Your task to perform on an android device: Add "dell xps" to the cart on walmart.com, then select checkout. Image 0: 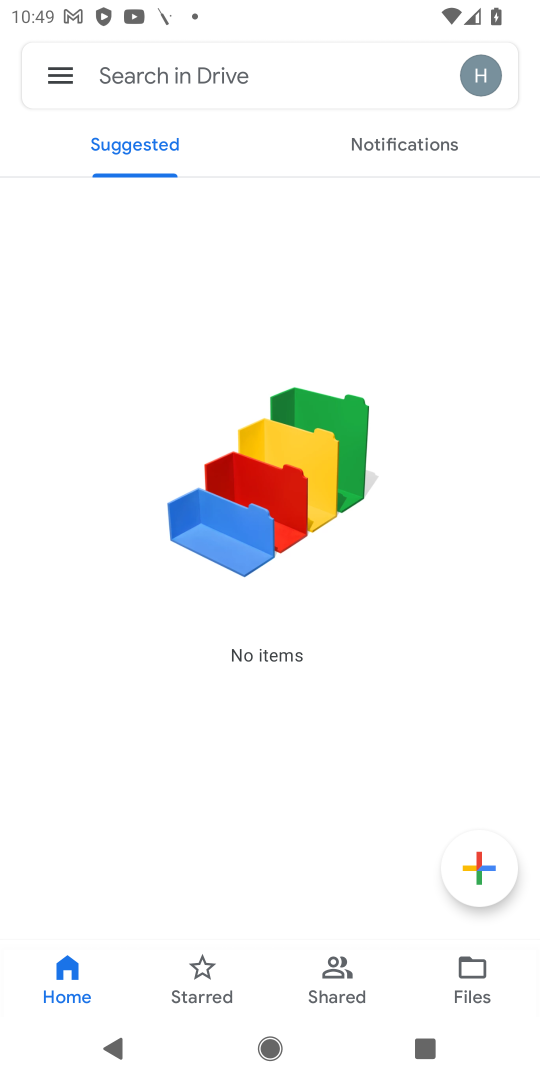
Step 0: press home button
Your task to perform on an android device: Add "dell xps" to the cart on walmart.com, then select checkout. Image 1: 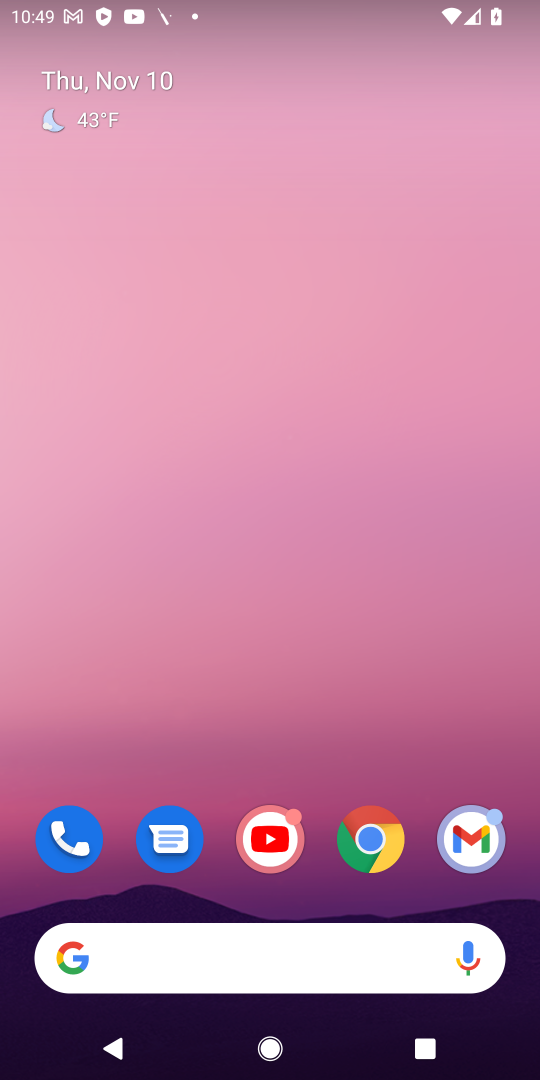
Step 1: click (390, 828)
Your task to perform on an android device: Add "dell xps" to the cart on walmart.com, then select checkout. Image 2: 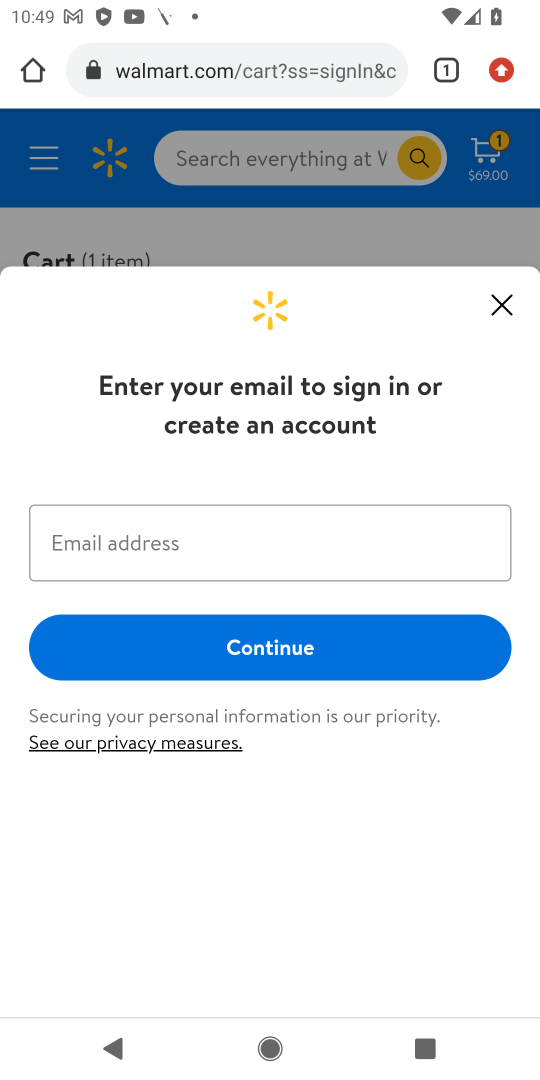
Step 2: click (503, 294)
Your task to perform on an android device: Add "dell xps" to the cart on walmart.com, then select checkout. Image 3: 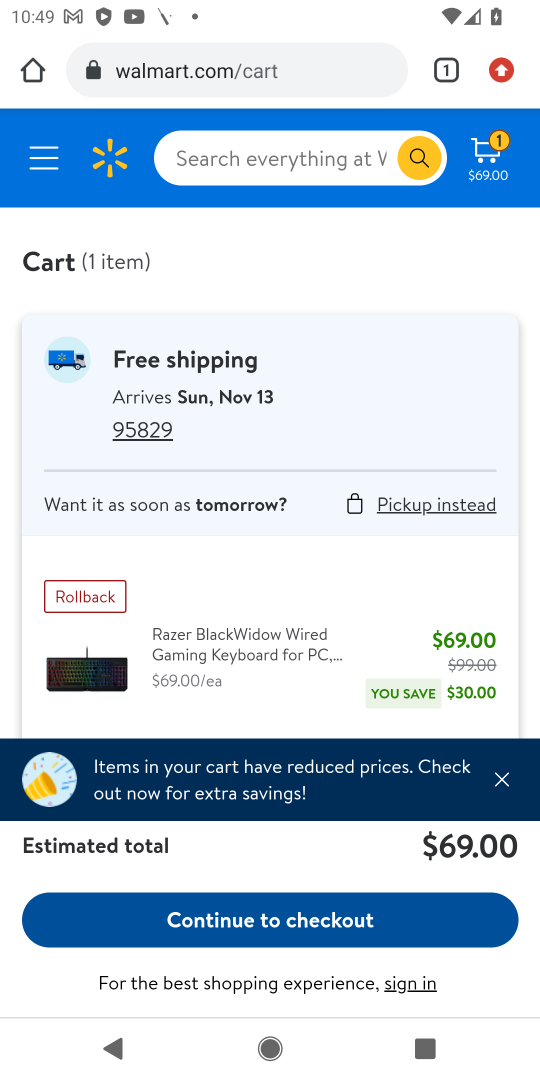
Step 3: click (252, 153)
Your task to perform on an android device: Add "dell xps" to the cart on walmart.com, then select checkout. Image 4: 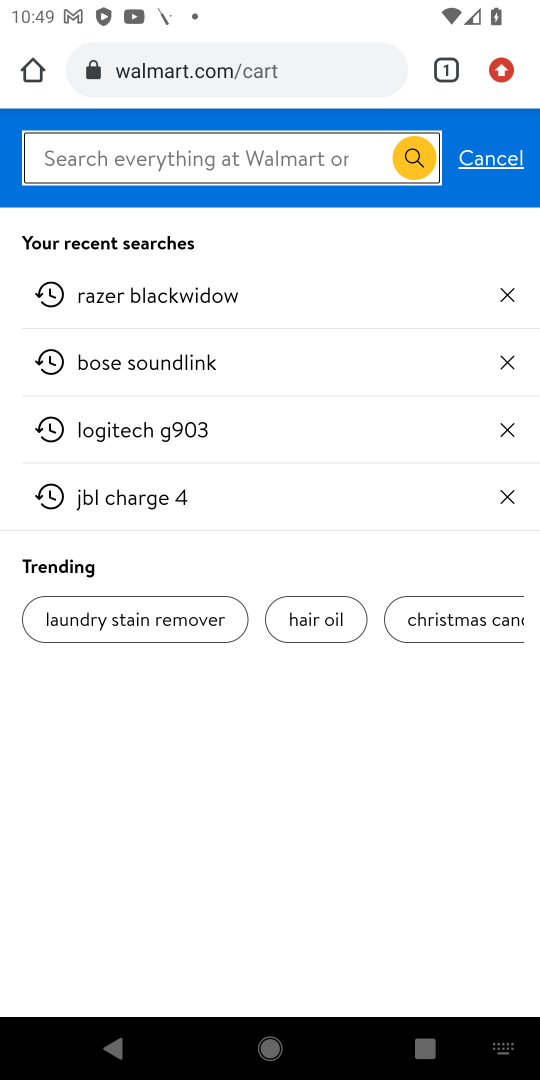
Step 4: type "dell xps"
Your task to perform on an android device: Add "dell xps" to the cart on walmart.com, then select checkout. Image 5: 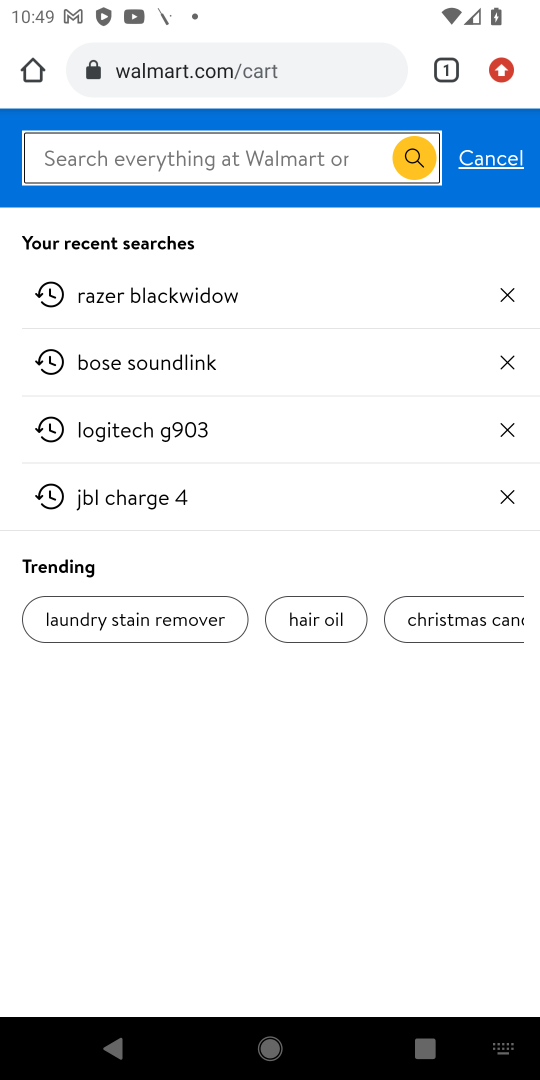
Step 5: press enter
Your task to perform on an android device: Add "dell xps" to the cart on walmart.com, then select checkout. Image 6: 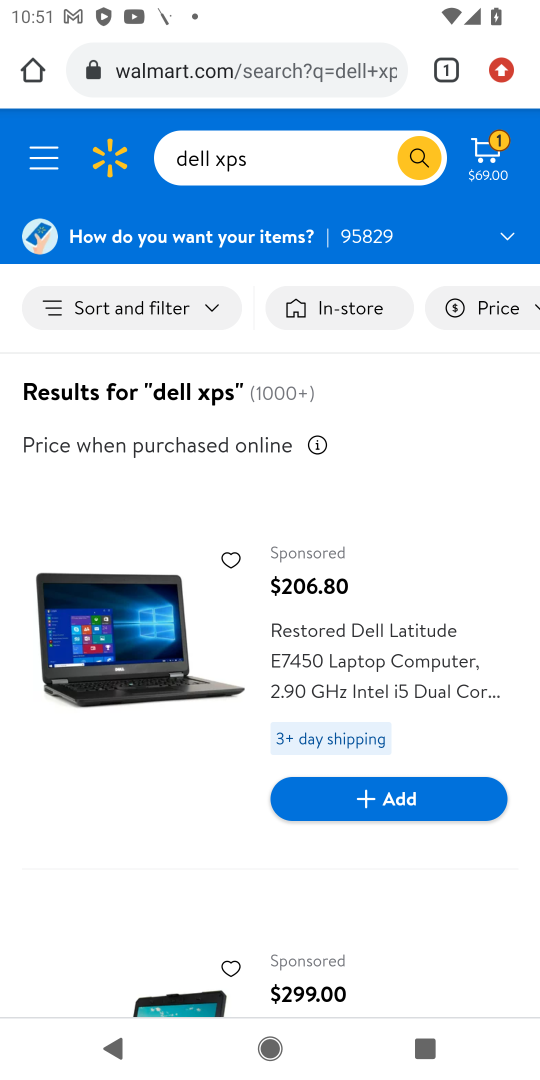
Step 6: drag from (161, 808) to (184, 358)
Your task to perform on an android device: Add "dell xps" to the cart on walmart.com, then select checkout. Image 7: 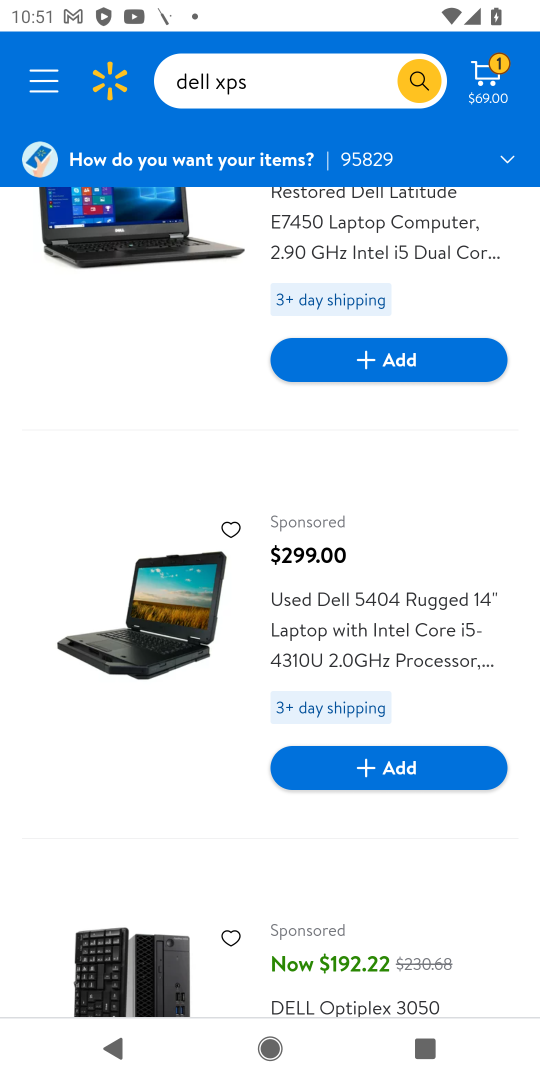
Step 7: drag from (220, 857) to (227, 269)
Your task to perform on an android device: Add "dell xps" to the cart on walmart.com, then select checkout. Image 8: 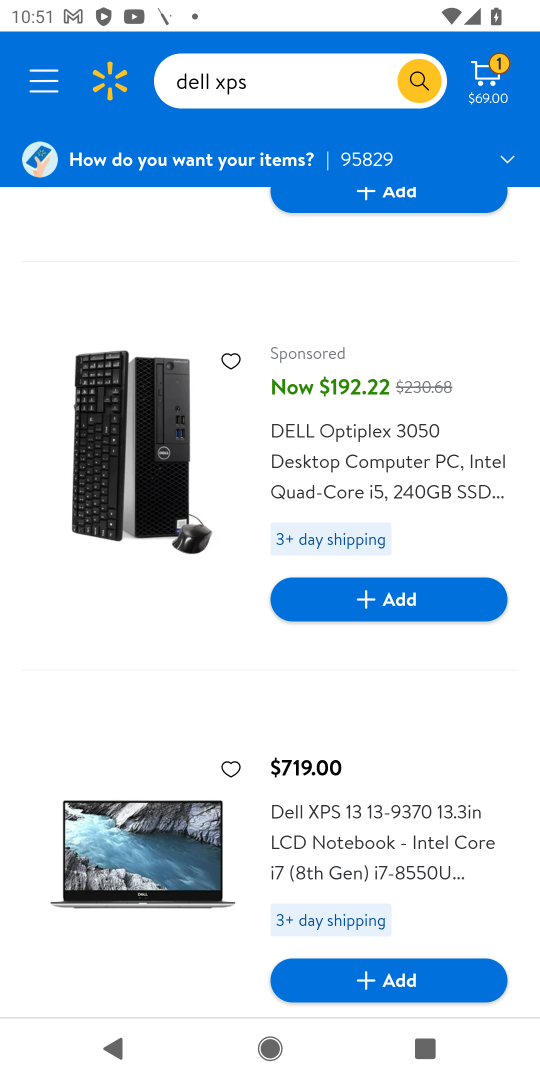
Step 8: click (174, 855)
Your task to perform on an android device: Add "dell xps" to the cart on walmart.com, then select checkout. Image 9: 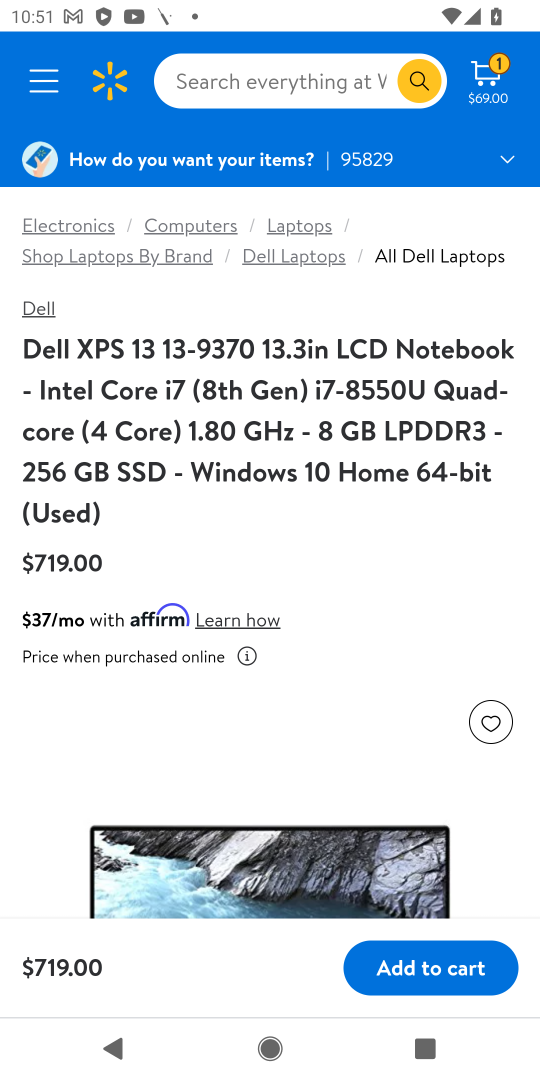
Step 9: click (429, 966)
Your task to perform on an android device: Add "dell xps" to the cart on walmart.com, then select checkout. Image 10: 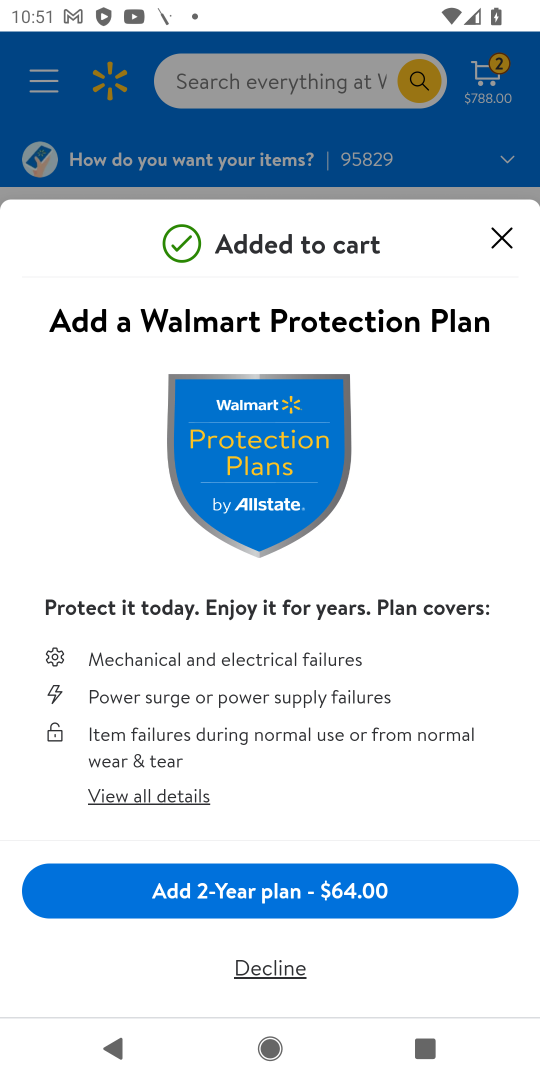
Step 10: click (505, 233)
Your task to perform on an android device: Add "dell xps" to the cart on walmart.com, then select checkout. Image 11: 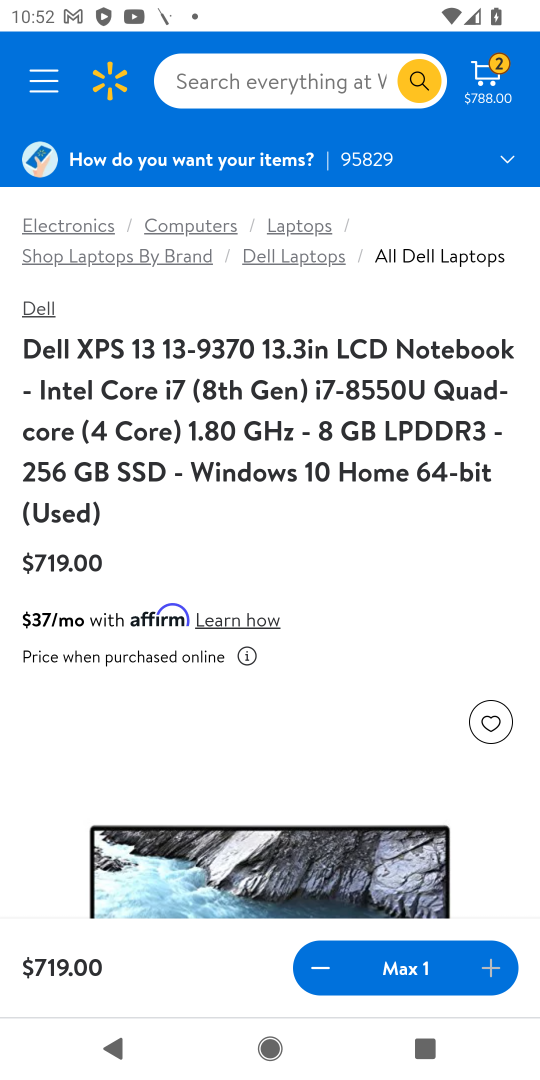
Step 11: click (481, 75)
Your task to perform on an android device: Add "dell xps" to the cart on walmart.com, then select checkout. Image 12: 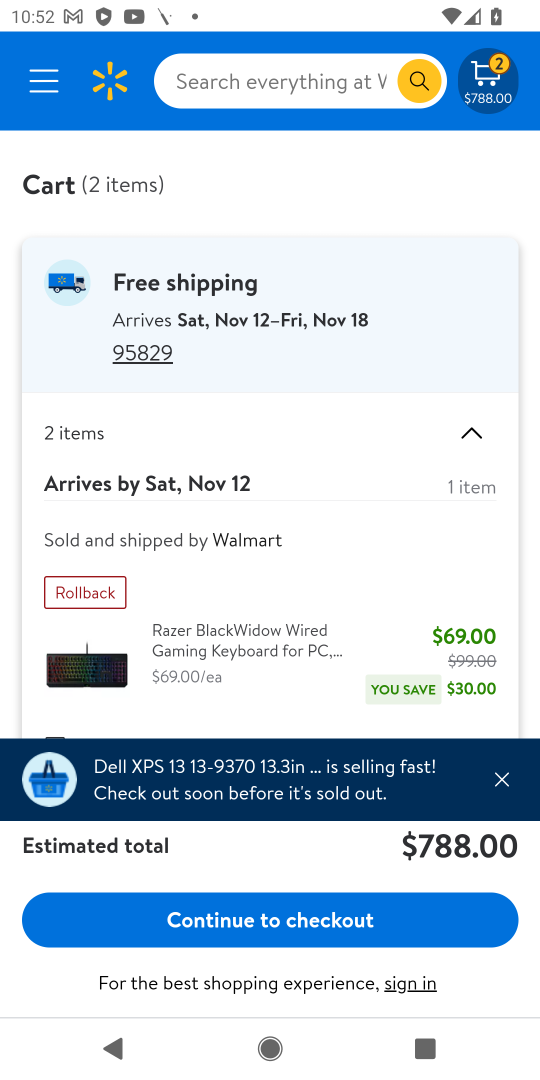
Step 12: click (341, 912)
Your task to perform on an android device: Add "dell xps" to the cart on walmart.com, then select checkout. Image 13: 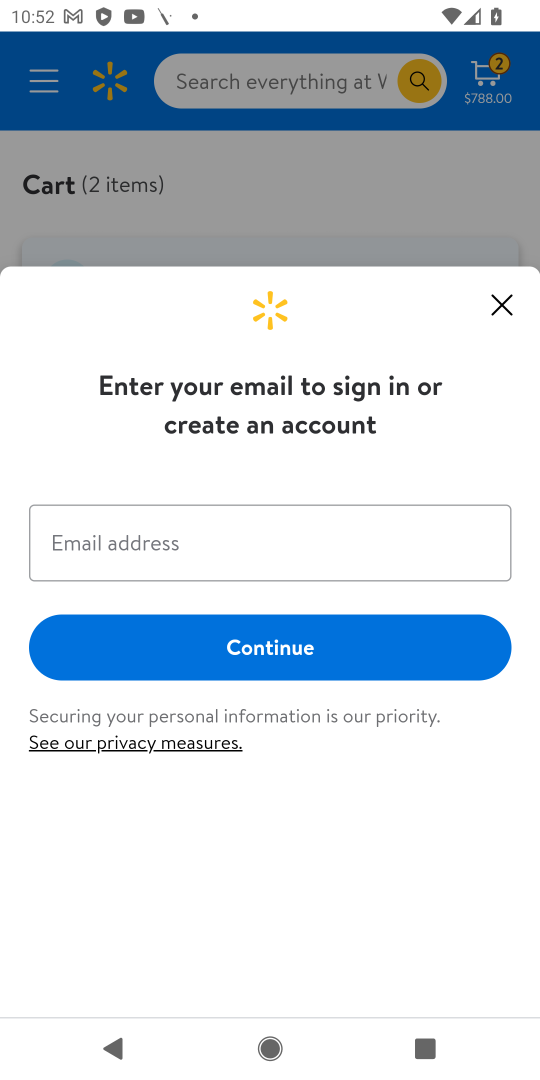
Step 13: task complete